Your task to perform on an android device: Open Chrome and go to settings Image 0: 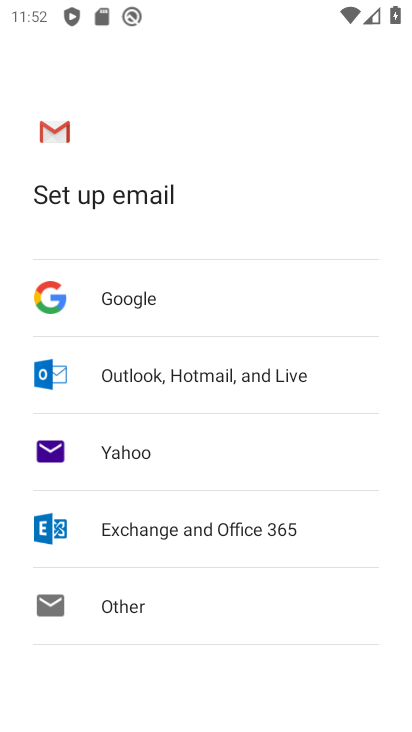
Step 0: press home button
Your task to perform on an android device: Open Chrome and go to settings Image 1: 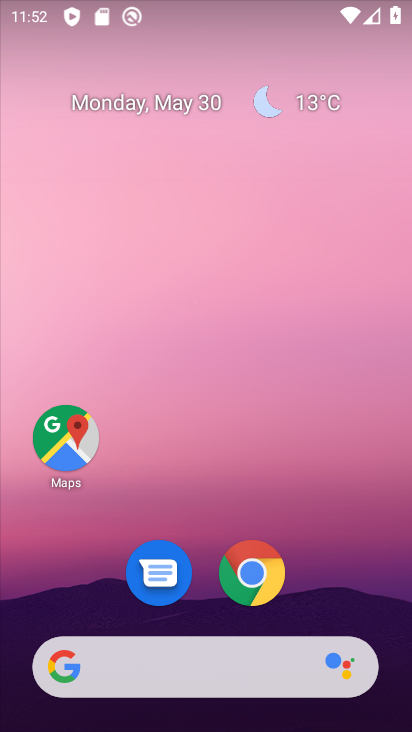
Step 1: click (252, 585)
Your task to perform on an android device: Open Chrome and go to settings Image 2: 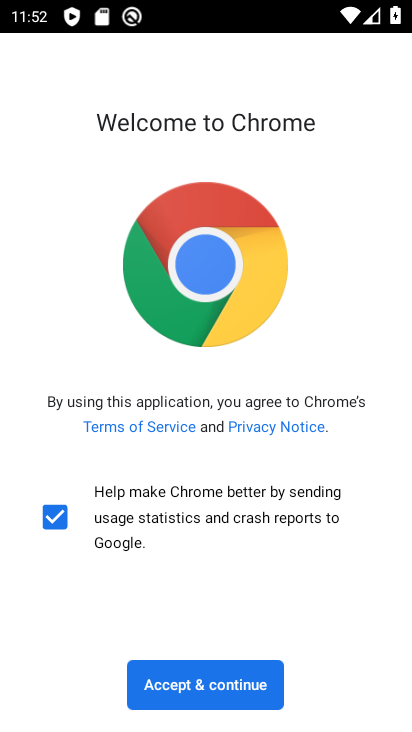
Step 2: click (186, 682)
Your task to perform on an android device: Open Chrome and go to settings Image 3: 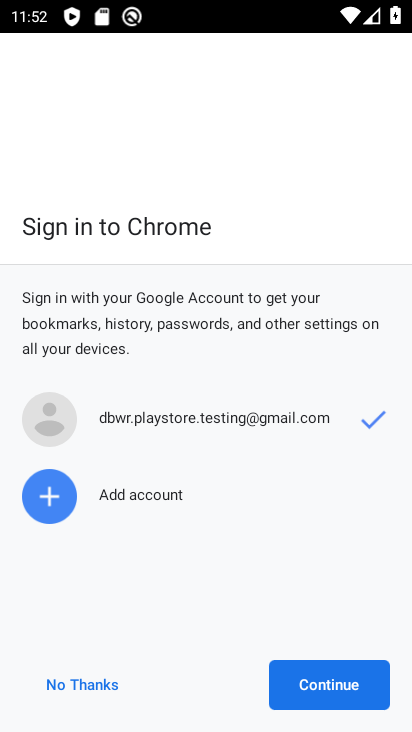
Step 3: click (304, 680)
Your task to perform on an android device: Open Chrome and go to settings Image 4: 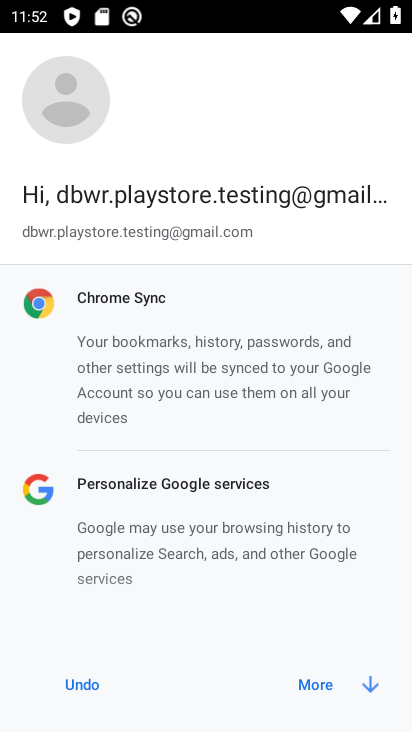
Step 4: click (343, 687)
Your task to perform on an android device: Open Chrome and go to settings Image 5: 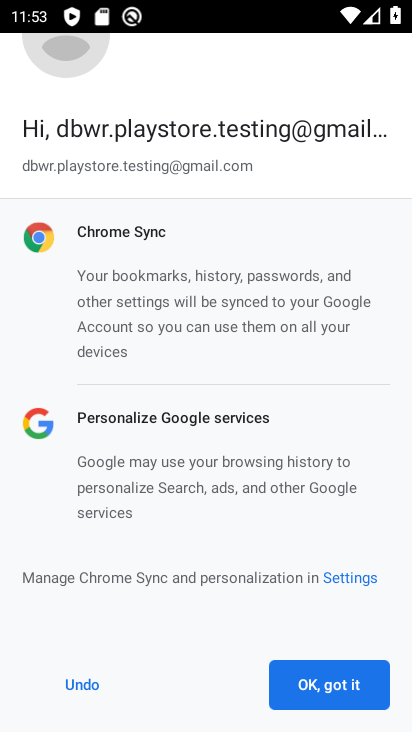
Step 5: click (344, 687)
Your task to perform on an android device: Open Chrome and go to settings Image 6: 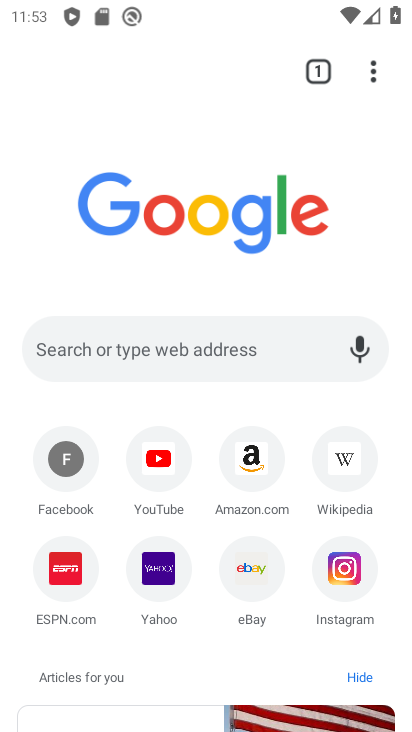
Step 6: task complete